Your task to perform on an android device: Search for "dell alienware" on newegg.com, select the first entry, and add it to the cart. Image 0: 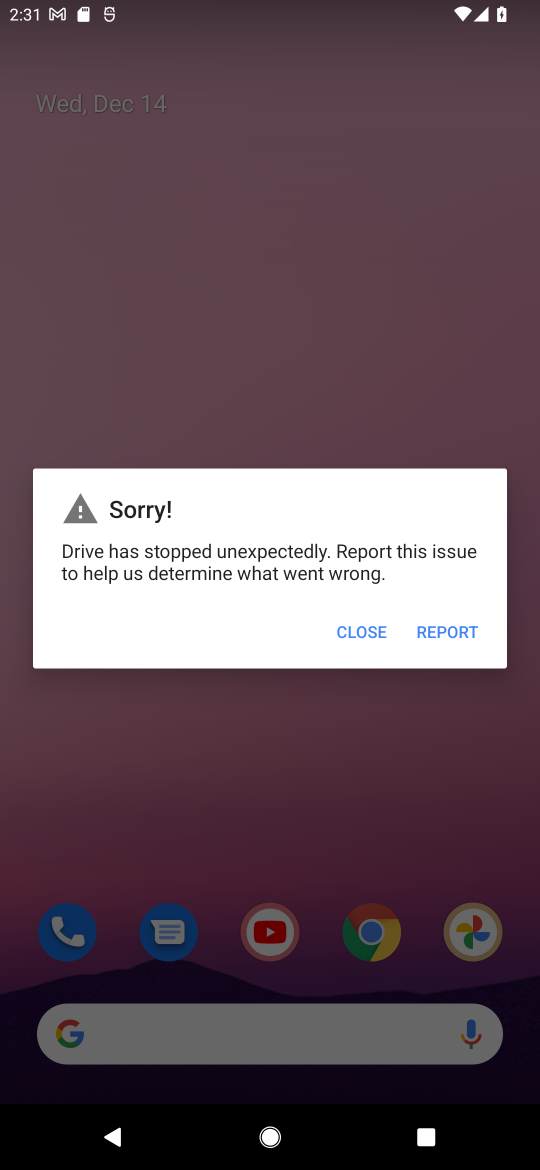
Step 0: press home button
Your task to perform on an android device: Search for "dell alienware" on newegg.com, select the first entry, and add it to the cart. Image 1: 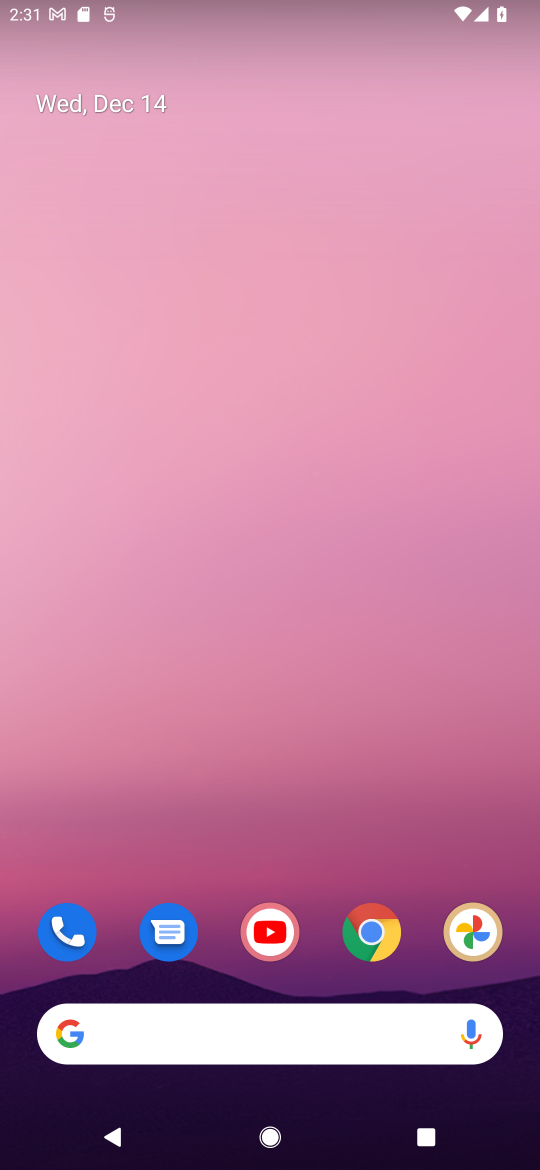
Step 1: click (257, 1034)
Your task to perform on an android device: Search for "dell alienware" on newegg.com, select the first entry, and add it to the cart. Image 2: 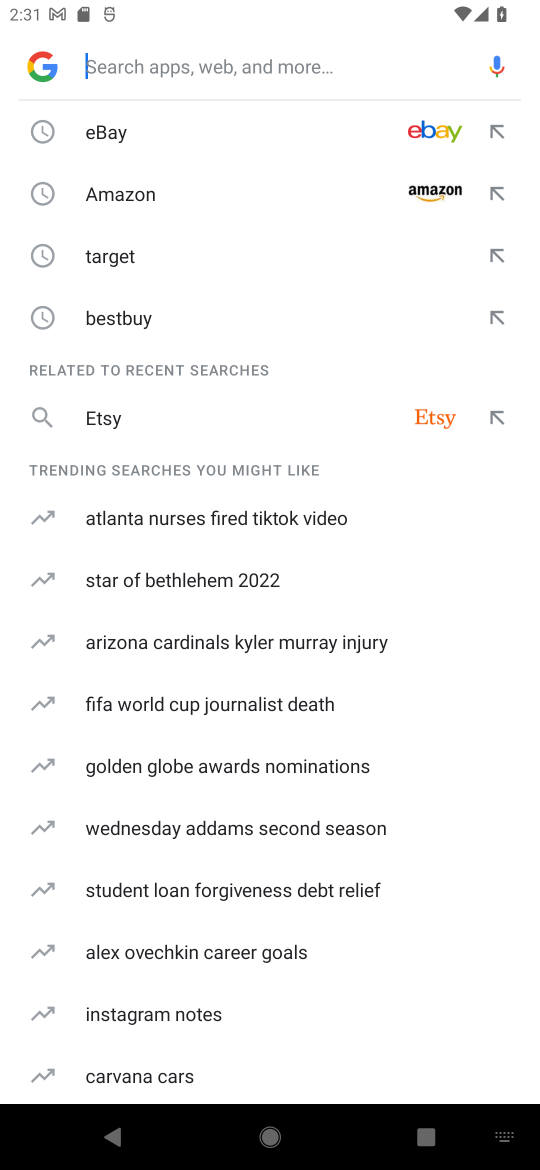
Step 2: type "newegg.com,"
Your task to perform on an android device: Search for "dell alienware" on newegg.com, select the first entry, and add it to the cart. Image 3: 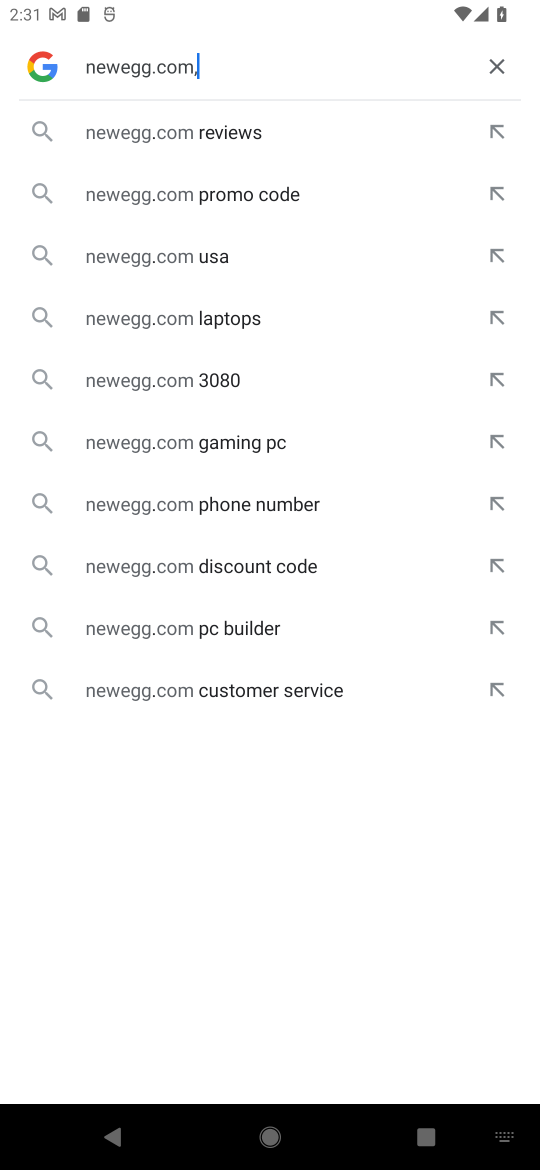
Step 3: click (494, 60)
Your task to perform on an android device: Search for "dell alienware" on newegg.com, select the first entry, and add it to the cart. Image 4: 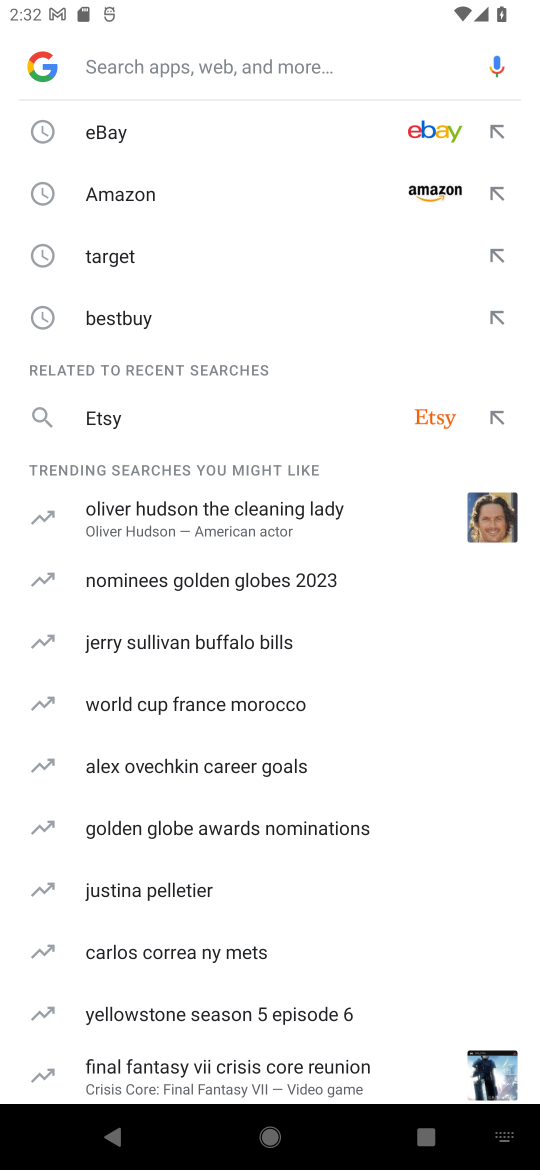
Step 4: type "newegg.com"
Your task to perform on an android device: Search for "dell alienware" on newegg.com, select the first entry, and add it to the cart. Image 5: 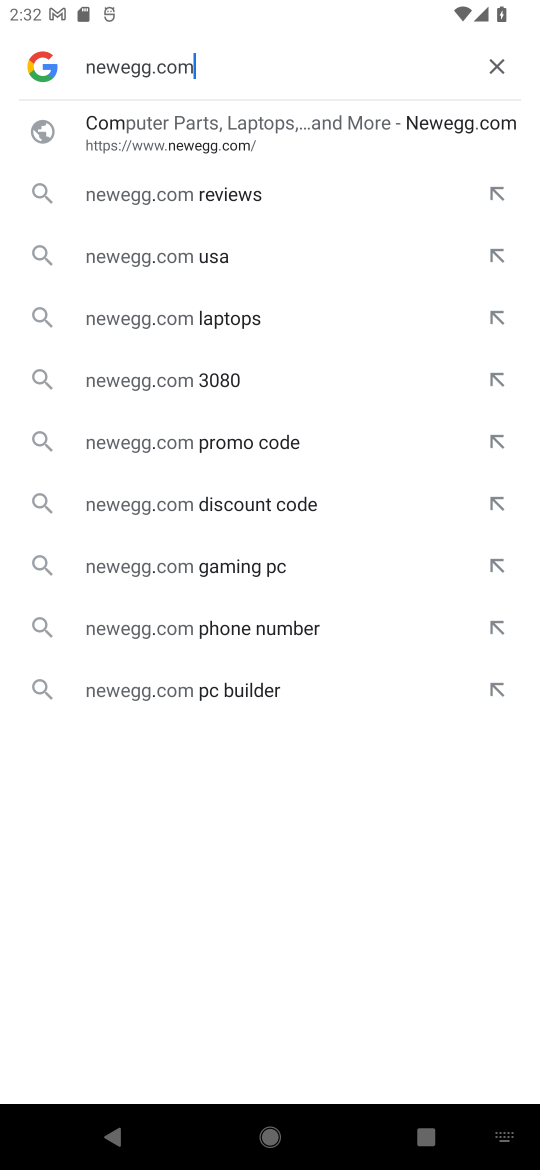
Step 5: click (230, 152)
Your task to perform on an android device: Search for "dell alienware" on newegg.com, select the first entry, and add it to the cart. Image 6: 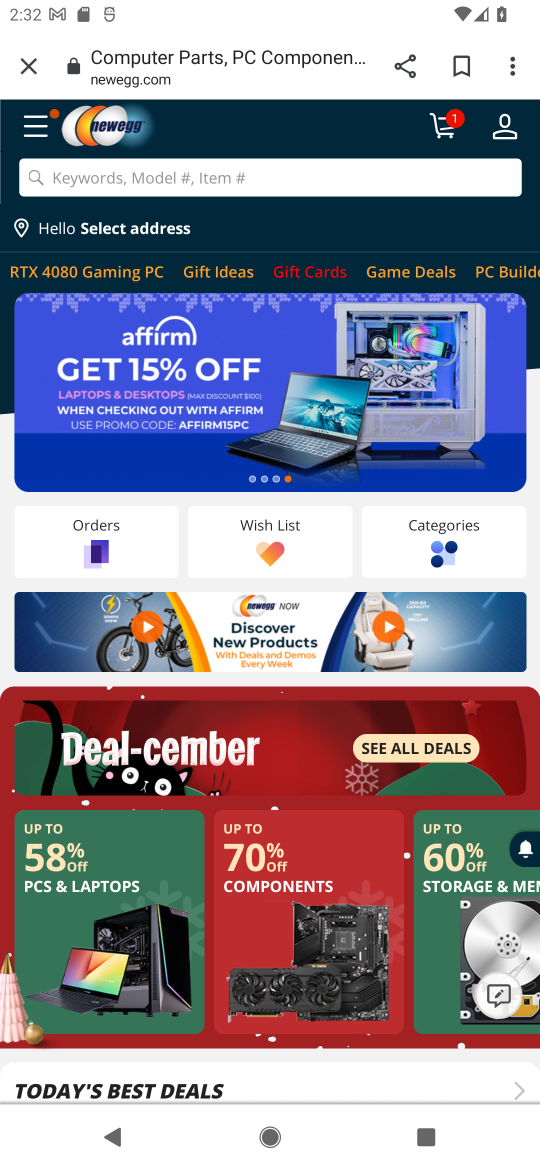
Step 6: click (289, 172)
Your task to perform on an android device: Search for "dell alienware" on newegg.com, select the first entry, and add it to the cart. Image 7: 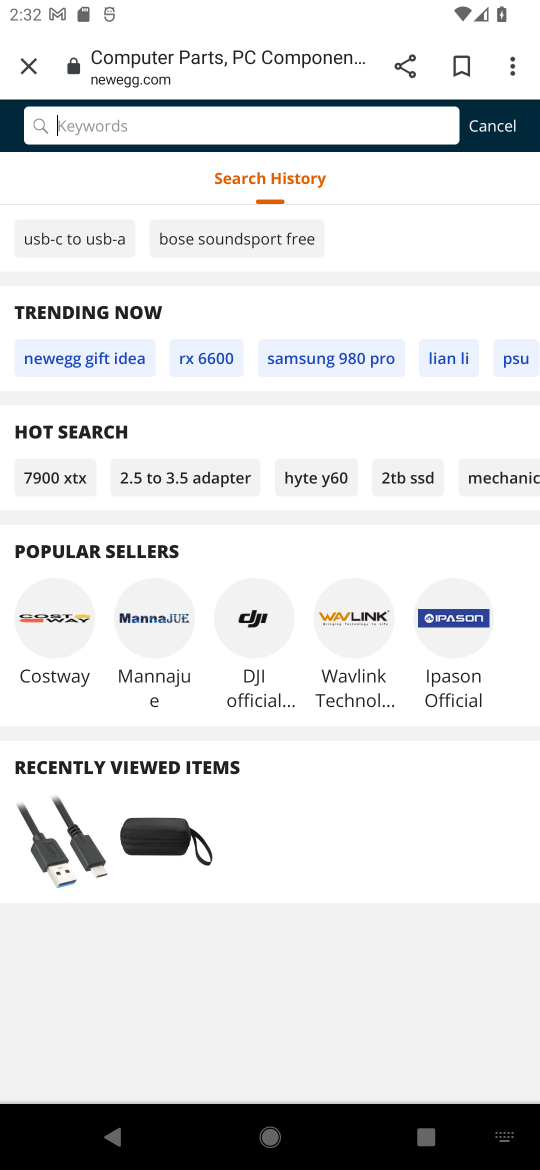
Step 7: type "dell alienware"
Your task to perform on an android device: Search for "dell alienware" on newegg.com, select the first entry, and add it to the cart. Image 8: 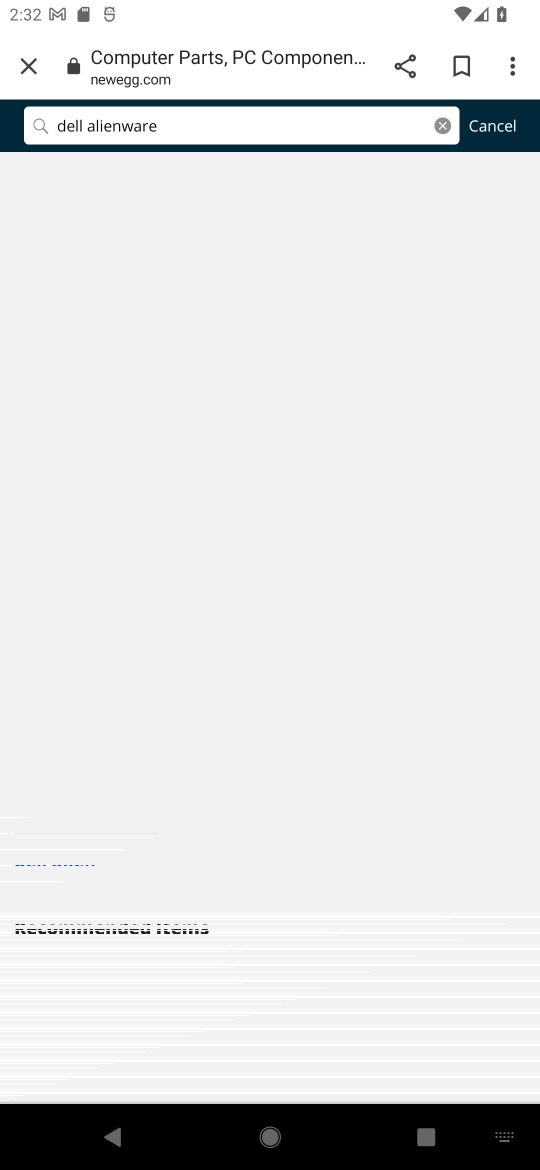
Step 8: type ""
Your task to perform on an android device: Search for "dell alienware" on newegg.com, select the first entry, and add it to the cart. Image 9: 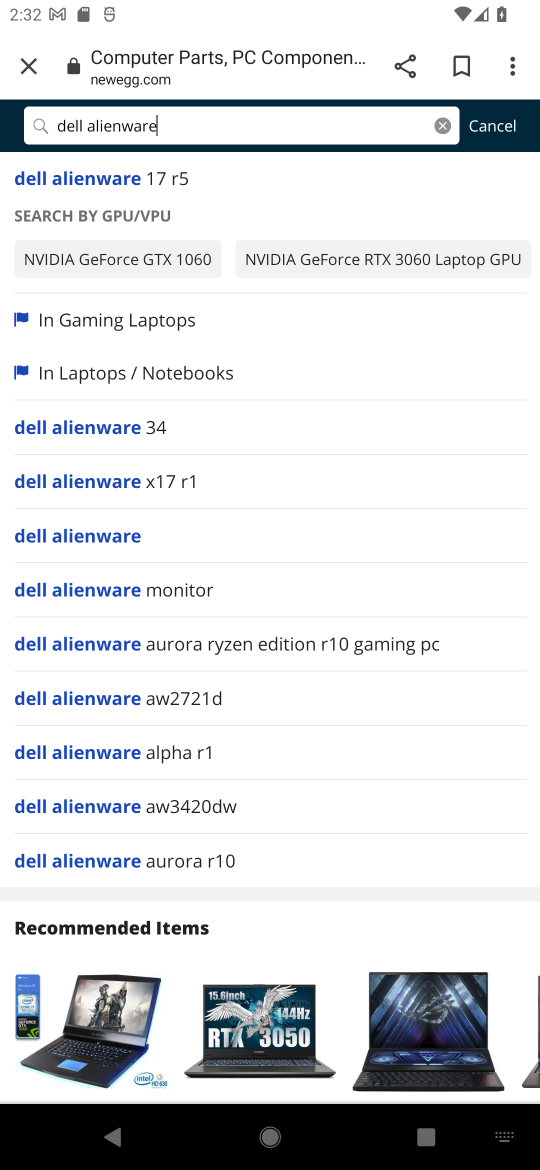
Step 9: click (104, 169)
Your task to perform on an android device: Search for "dell alienware" on newegg.com, select the first entry, and add it to the cart. Image 10: 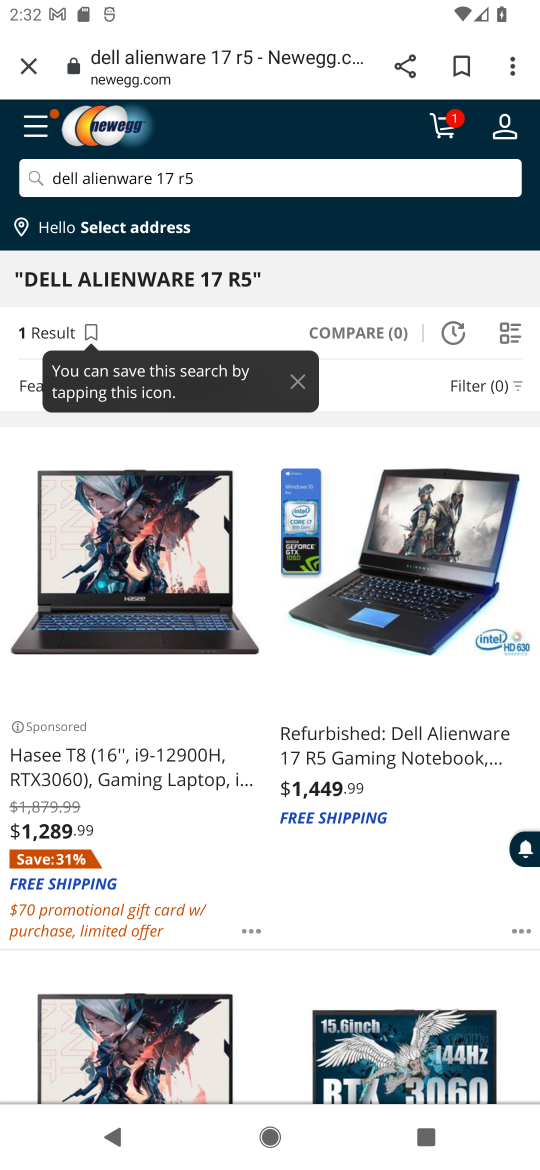
Step 10: click (122, 660)
Your task to perform on an android device: Search for "dell alienware" on newegg.com, select the first entry, and add it to the cart. Image 11: 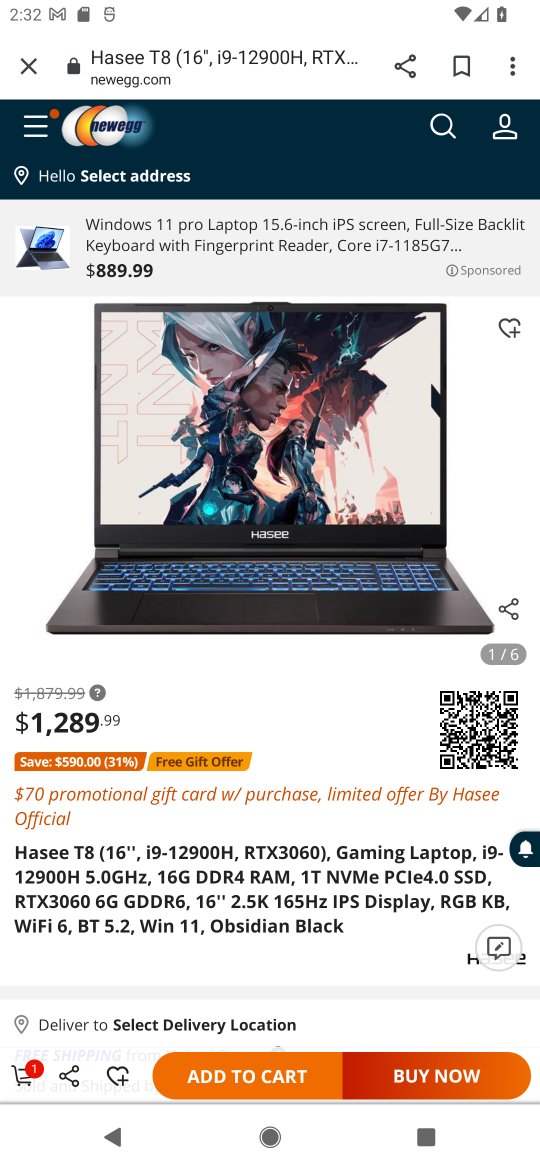
Step 11: click (226, 1064)
Your task to perform on an android device: Search for "dell alienware" on newegg.com, select the first entry, and add it to the cart. Image 12: 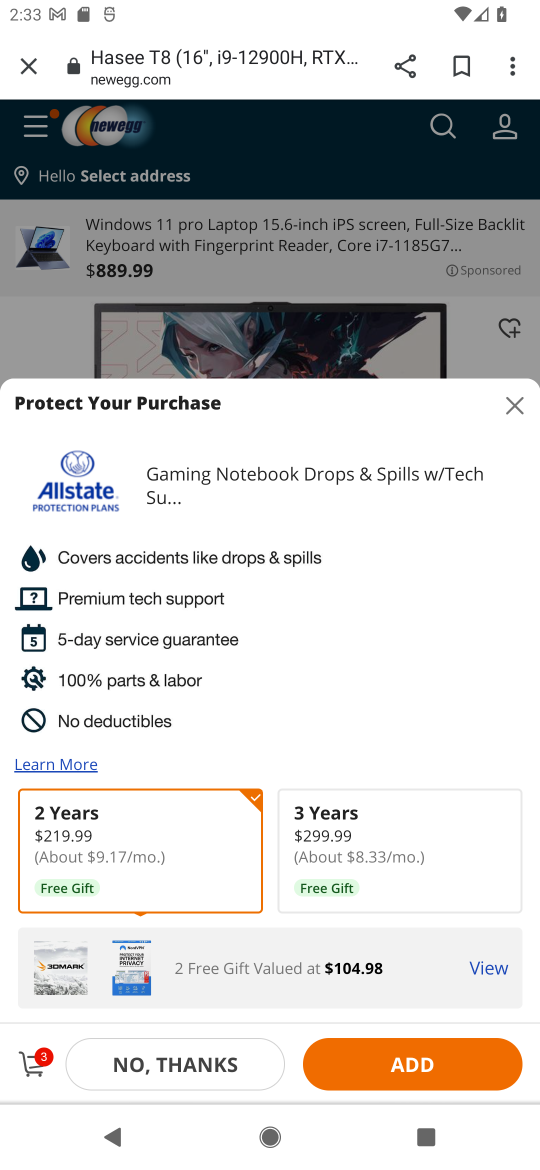
Step 12: click (188, 1067)
Your task to perform on an android device: Search for "dell alienware" on newegg.com, select the first entry, and add it to the cart. Image 13: 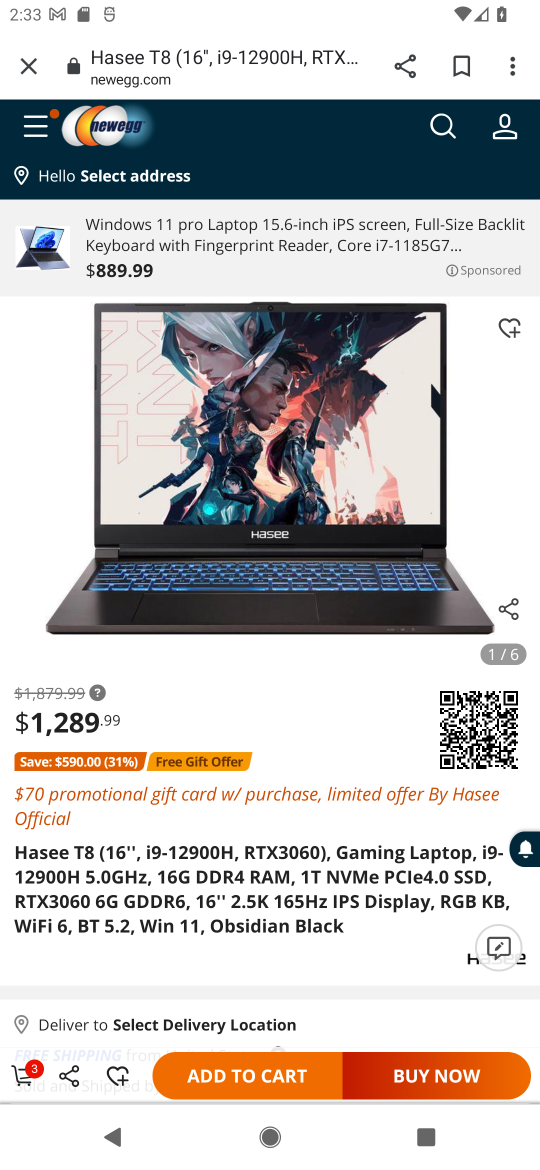
Step 13: task complete